Your task to perform on an android device: What's on my calendar tomorrow? Image 0: 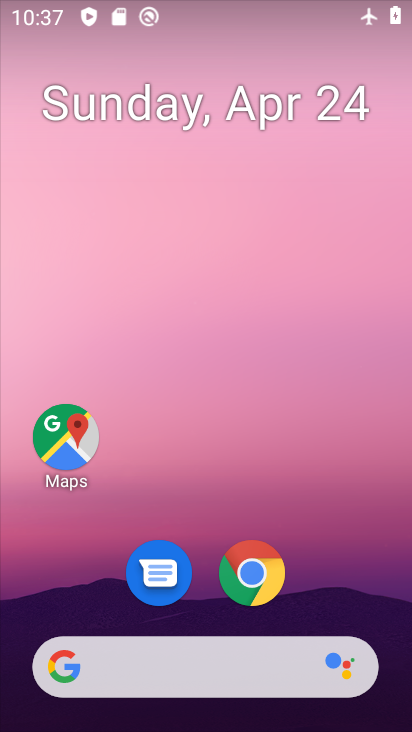
Step 0: drag from (324, 594) to (317, 78)
Your task to perform on an android device: What's on my calendar tomorrow? Image 1: 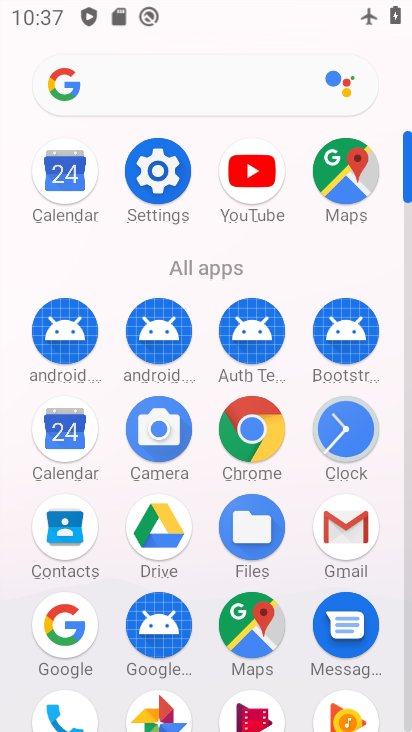
Step 1: click (56, 442)
Your task to perform on an android device: What's on my calendar tomorrow? Image 2: 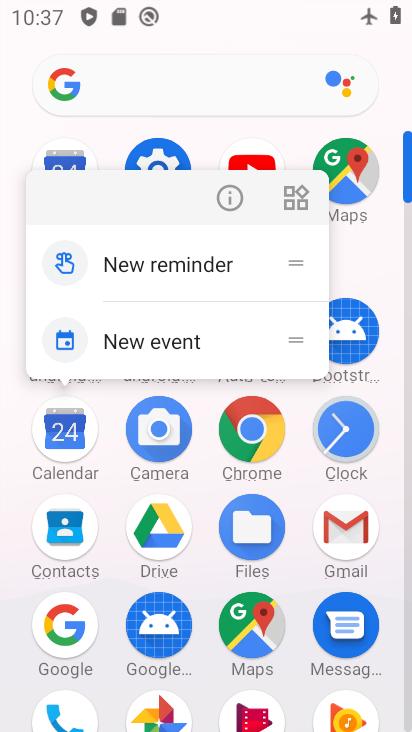
Step 2: click (56, 442)
Your task to perform on an android device: What's on my calendar tomorrow? Image 3: 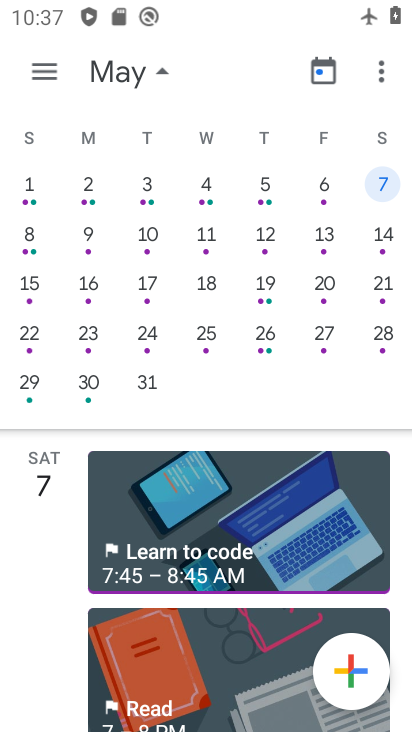
Step 3: drag from (47, 312) to (401, 310)
Your task to perform on an android device: What's on my calendar tomorrow? Image 4: 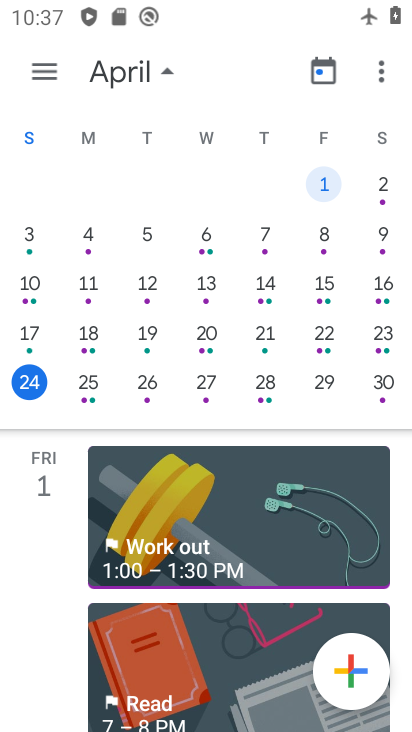
Step 4: click (90, 382)
Your task to perform on an android device: What's on my calendar tomorrow? Image 5: 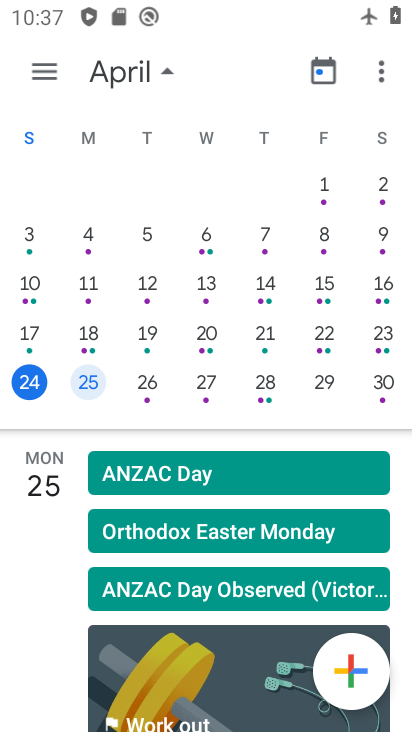
Step 5: task complete